Your task to perform on an android device: turn off priority inbox in the gmail app Image 0: 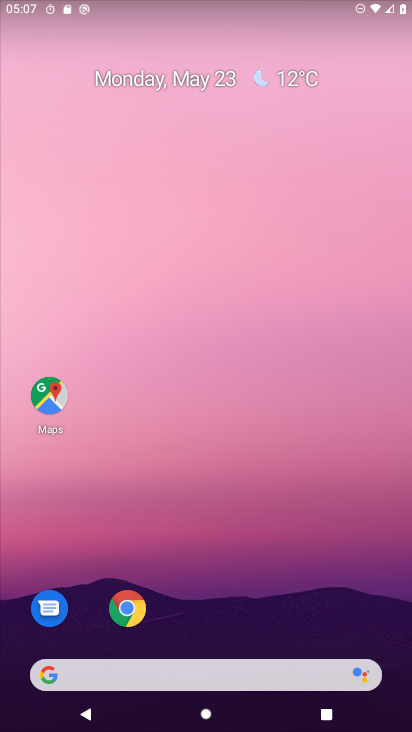
Step 0: drag from (267, 451) to (205, 45)
Your task to perform on an android device: turn off priority inbox in the gmail app Image 1: 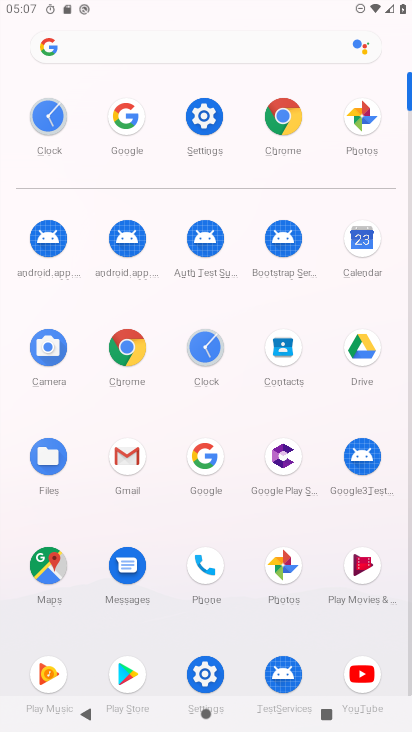
Step 1: click (127, 453)
Your task to perform on an android device: turn off priority inbox in the gmail app Image 2: 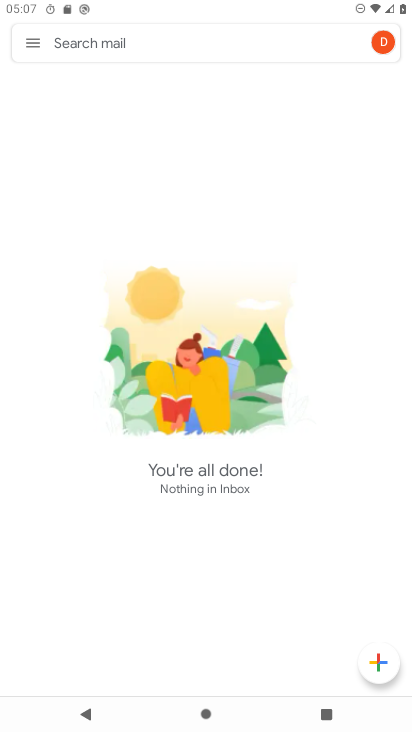
Step 2: click (35, 41)
Your task to perform on an android device: turn off priority inbox in the gmail app Image 3: 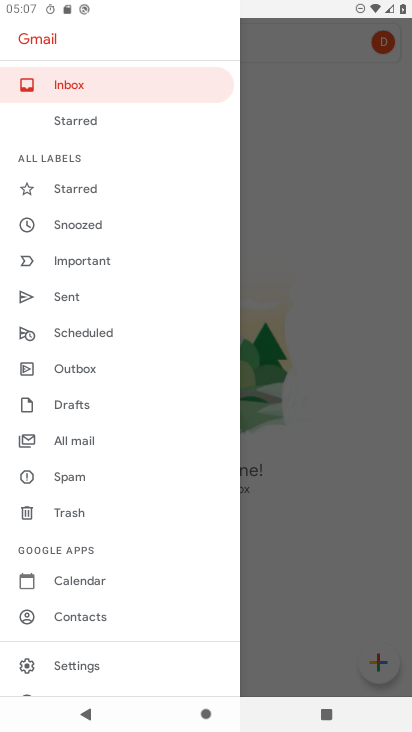
Step 3: click (108, 664)
Your task to perform on an android device: turn off priority inbox in the gmail app Image 4: 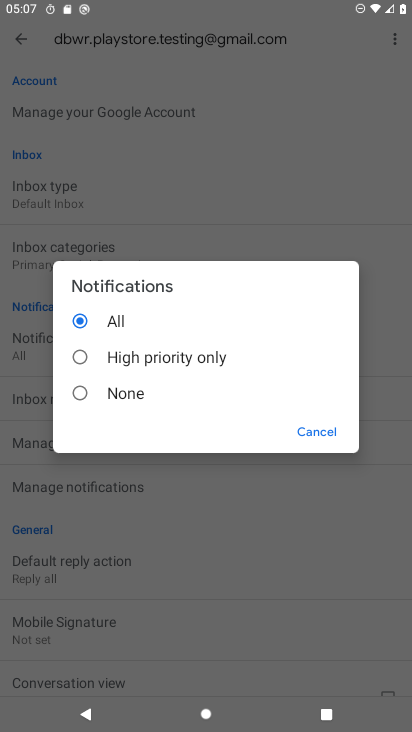
Step 4: click (319, 427)
Your task to perform on an android device: turn off priority inbox in the gmail app Image 5: 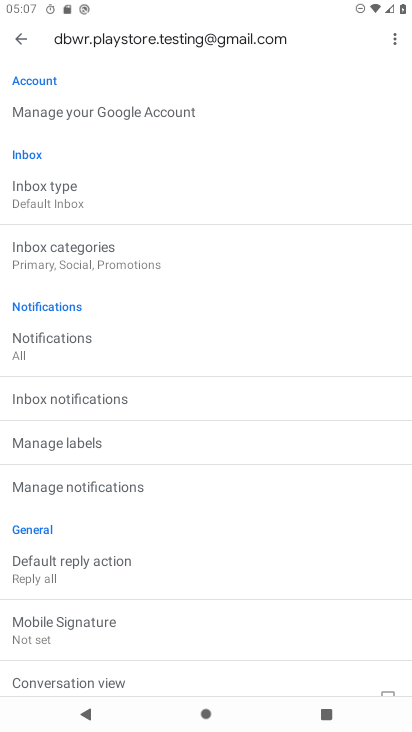
Step 5: click (139, 183)
Your task to perform on an android device: turn off priority inbox in the gmail app Image 6: 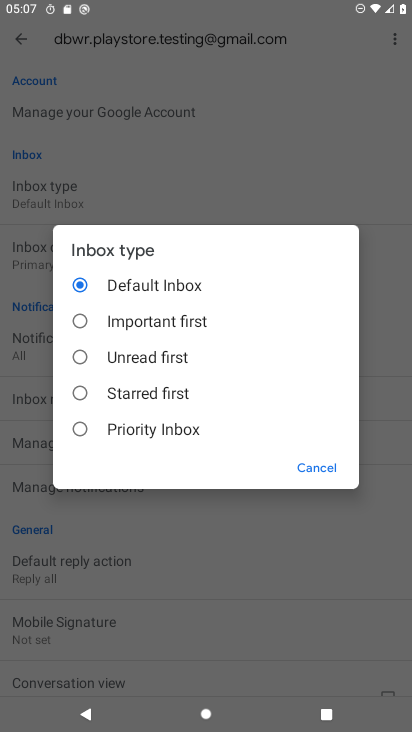
Step 6: click (150, 338)
Your task to perform on an android device: turn off priority inbox in the gmail app Image 7: 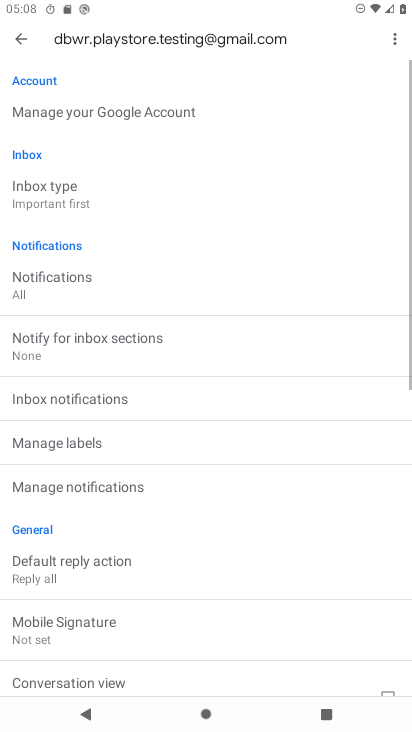
Step 7: task complete